Your task to perform on an android device: Go to location settings Image 0: 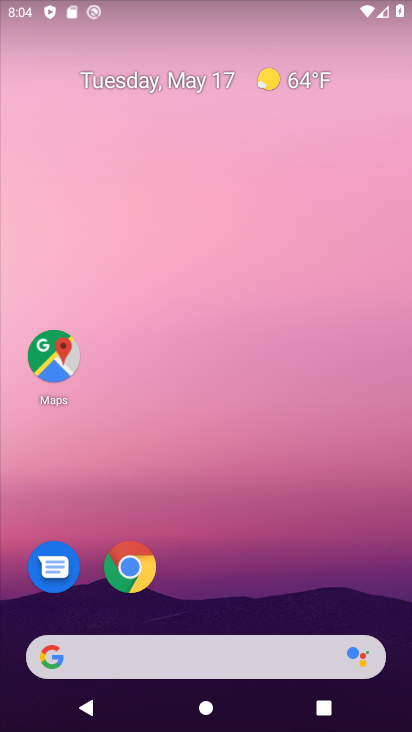
Step 0: drag from (306, 608) to (291, 59)
Your task to perform on an android device: Go to location settings Image 1: 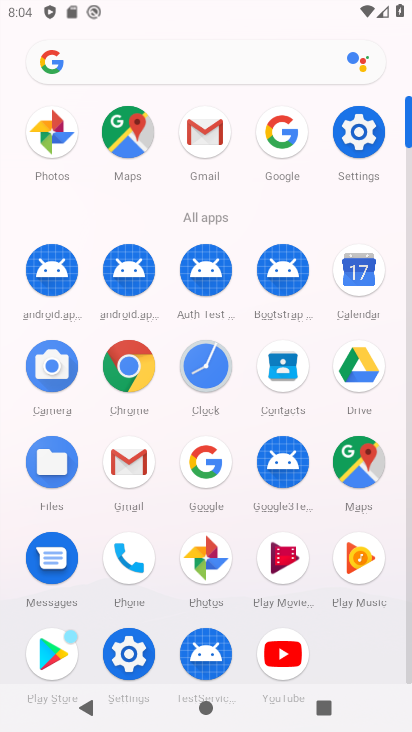
Step 1: click (116, 654)
Your task to perform on an android device: Go to location settings Image 2: 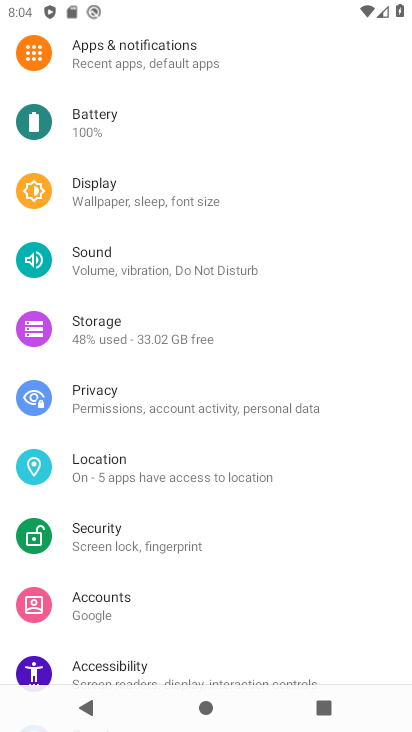
Step 2: click (153, 470)
Your task to perform on an android device: Go to location settings Image 3: 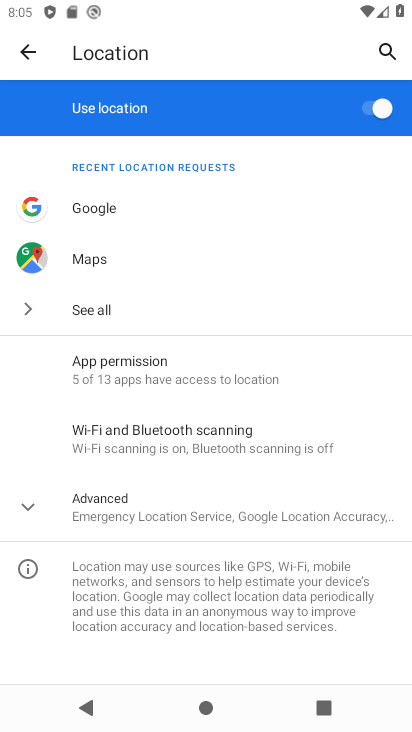
Step 3: task complete